Your task to perform on an android device: Open Maps and search for coffee Image 0: 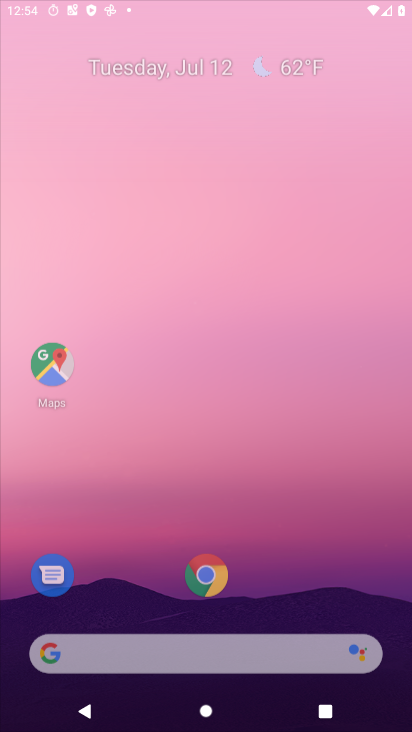
Step 0: press home button
Your task to perform on an android device: Open Maps and search for coffee Image 1: 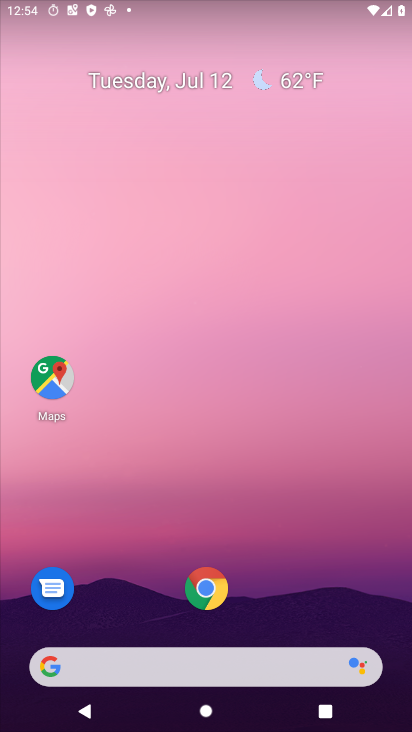
Step 1: click (44, 386)
Your task to perform on an android device: Open Maps and search for coffee Image 2: 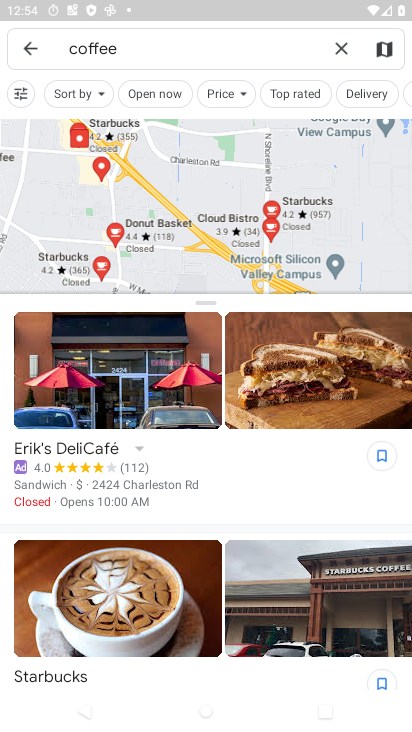
Step 2: task complete